Your task to perform on an android device: open chrome privacy settings Image 0: 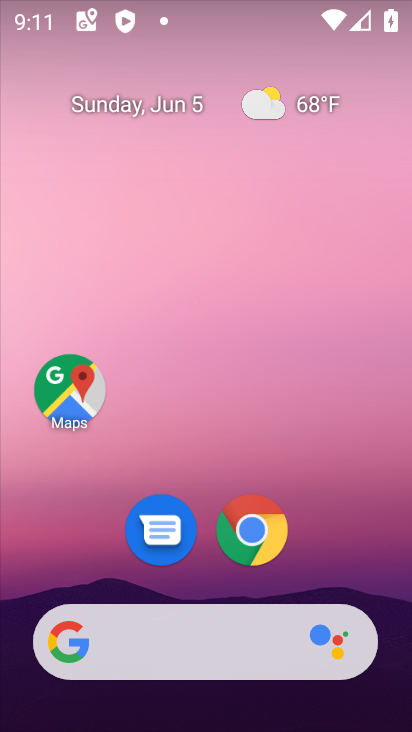
Step 0: click (255, 534)
Your task to perform on an android device: open chrome privacy settings Image 1: 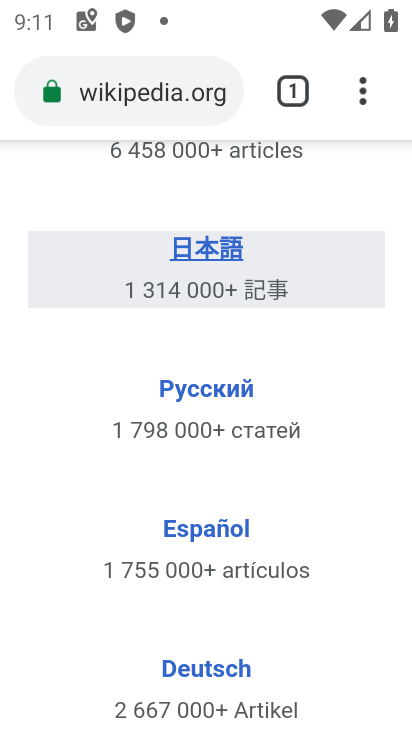
Step 1: click (362, 102)
Your task to perform on an android device: open chrome privacy settings Image 2: 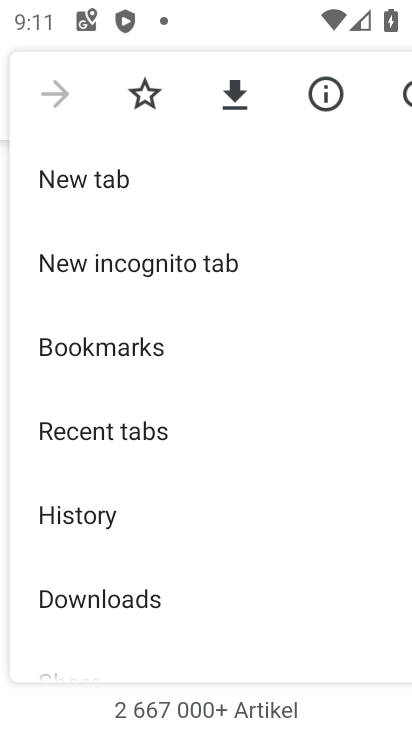
Step 2: drag from (198, 605) to (267, 151)
Your task to perform on an android device: open chrome privacy settings Image 3: 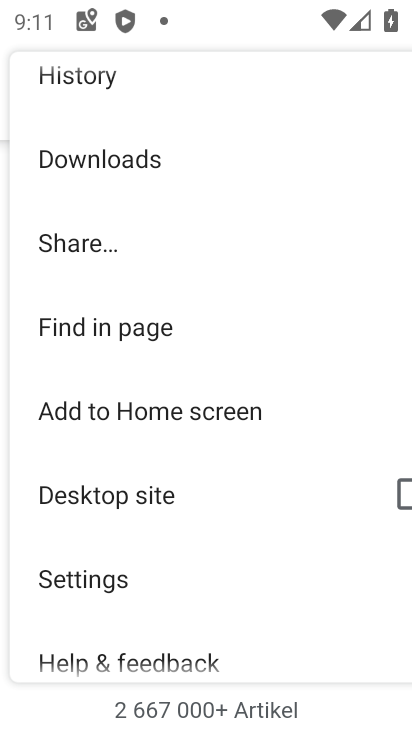
Step 3: click (103, 571)
Your task to perform on an android device: open chrome privacy settings Image 4: 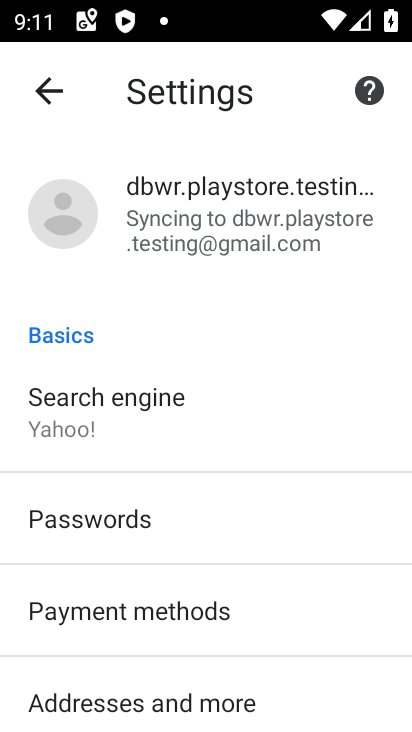
Step 4: drag from (316, 698) to (255, 232)
Your task to perform on an android device: open chrome privacy settings Image 5: 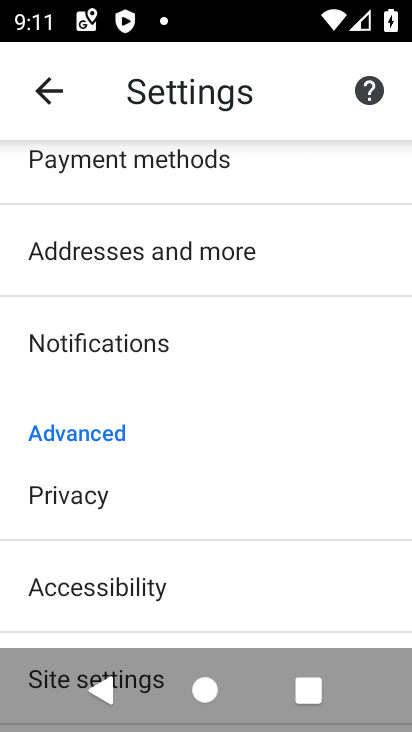
Step 5: click (27, 474)
Your task to perform on an android device: open chrome privacy settings Image 6: 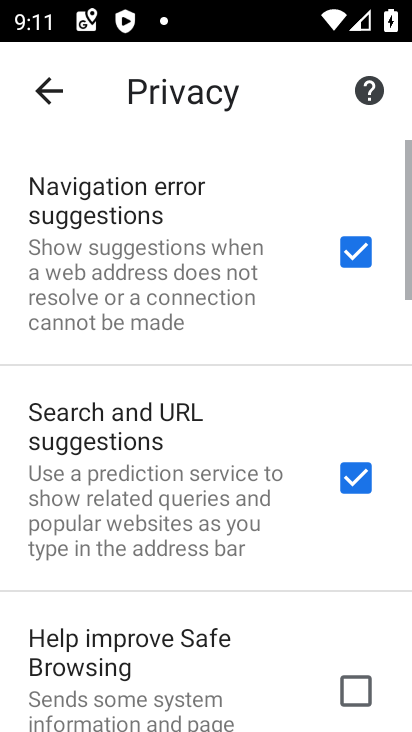
Step 6: task complete